Your task to perform on an android device: Play the last video I watched on Youtube Image 0: 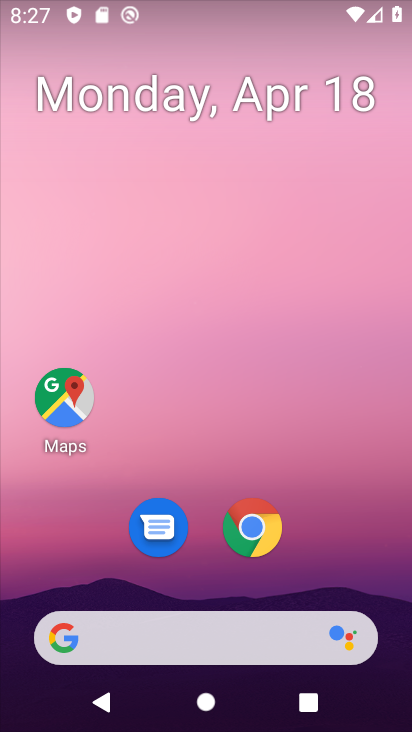
Step 0: drag from (345, 492) to (381, 46)
Your task to perform on an android device: Play the last video I watched on Youtube Image 1: 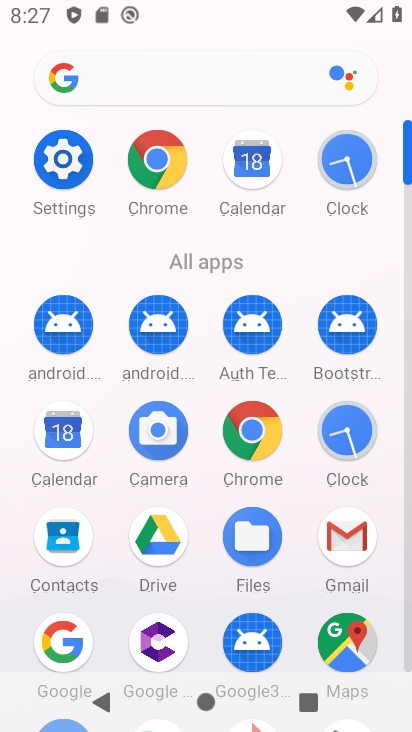
Step 1: drag from (320, 262) to (298, 25)
Your task to perform on an android device: Play the last video I watched on Youtube Image 2: 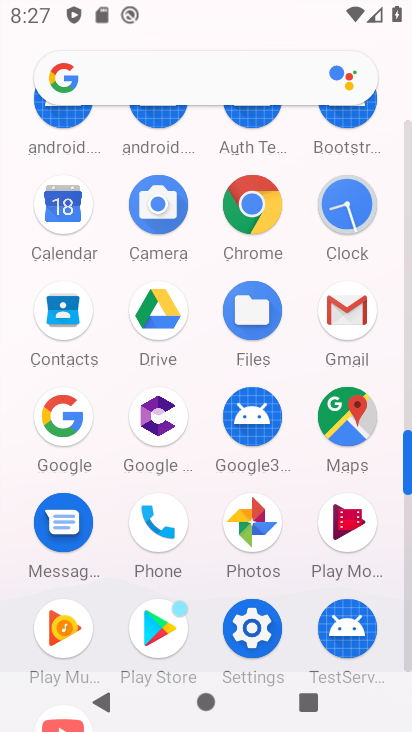
Step 2: drag from (297, 138) to (295, 25)
Your task to perform on an android device: Play the last video I watched on Youtube Image 3: 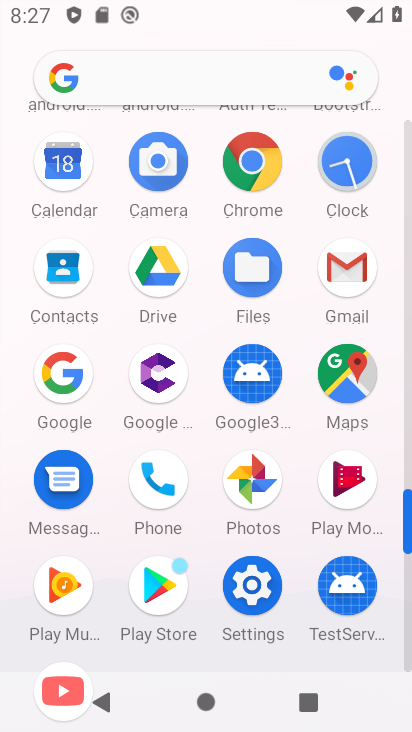
Step 3: drag from (301, 207) to (322, 12)
Your task to perform on an android device: Play the last video I watched on Youtube Image 4: 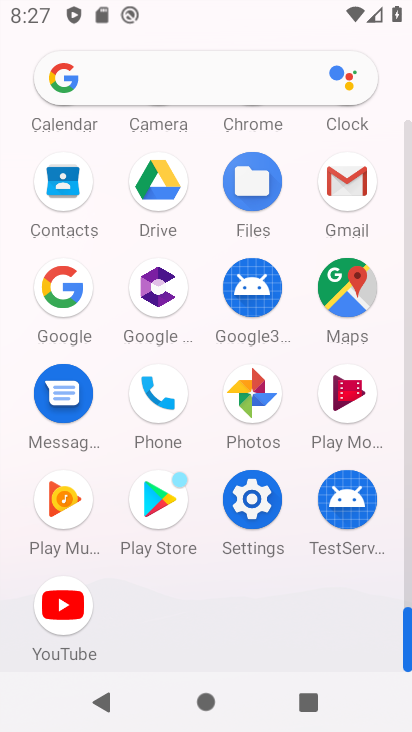
Step 4: click (57, 609)
Your task to perform on an android device: Play the last video I watched on Youtube Image 5: 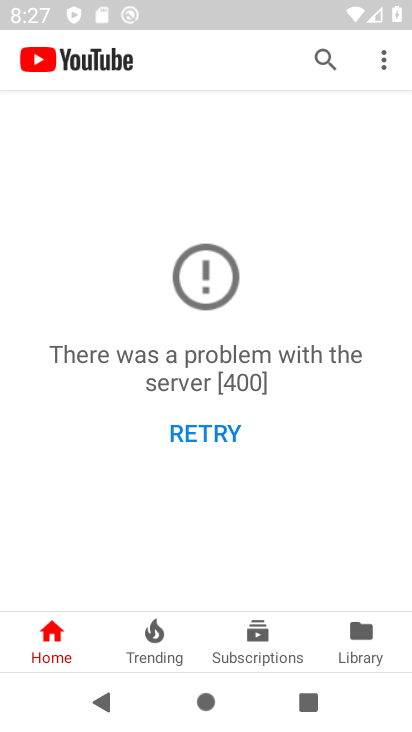
Step 5: click (356, 633)
Your task to perform on an android device: Play the last video I watched on Youtube Image 6: 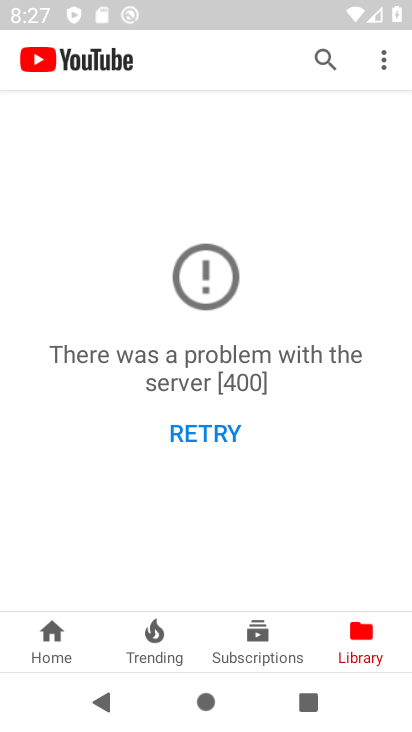
Step 6: click (59, 636)
Your task to perform on an android device: Play the last video I watched on Youtube Image 7: 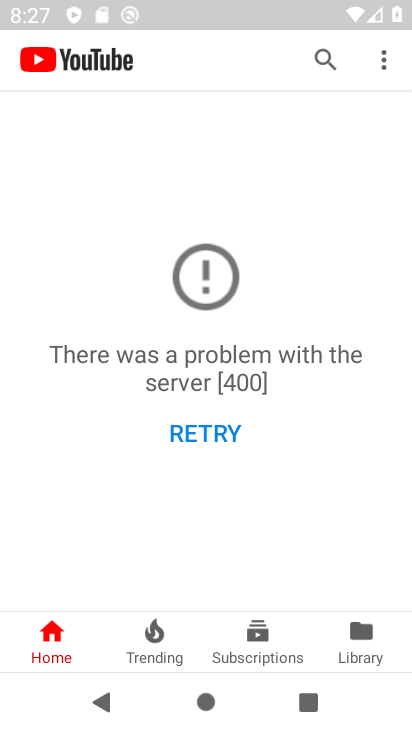
Step 7: click (153, 639)
Your task to perform on an android device: Play the last video I watched on Youtube Image 8: 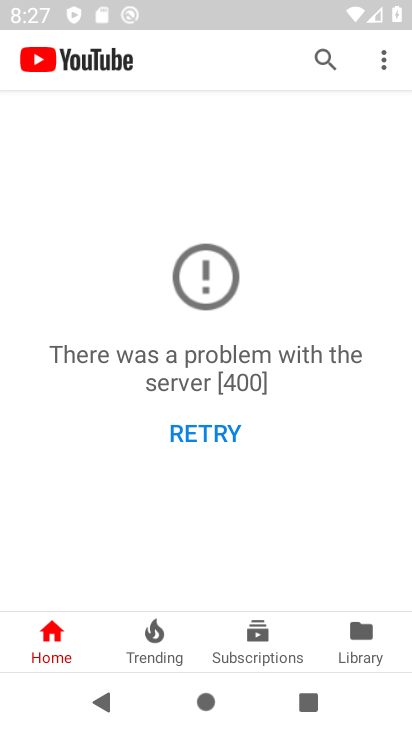
Step 8: click (268, 627)
Your task to perform on an android device: Play the last video I watched on Youtube Image 9: 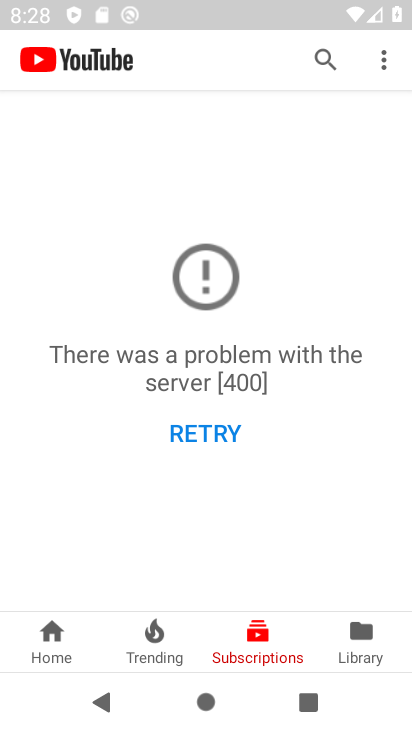
Step 9: task complete